Your task to perform on an android device: Turn off the flashlight Image 0: 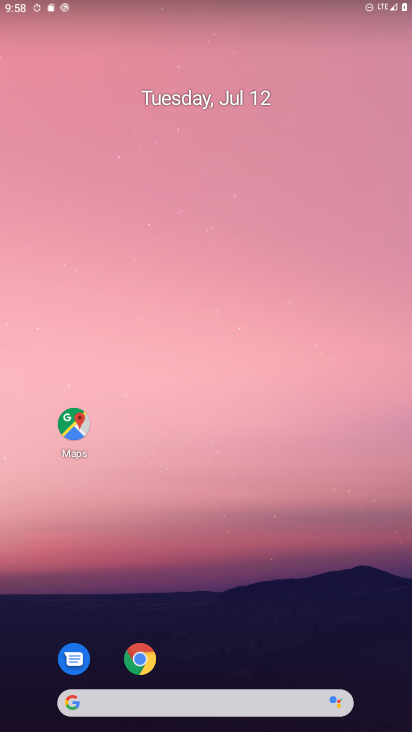
Step 0: drag from (381, 670) to (318, 69)
Your task to perform on an android device: Turn off the flashlight Image 1: 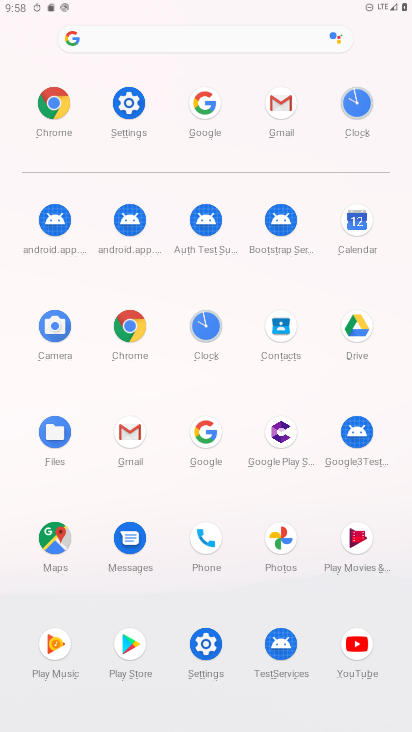
Step 1: click (118, 96)
Your task to perform on an android device: Turn off the flashlight Image 2: 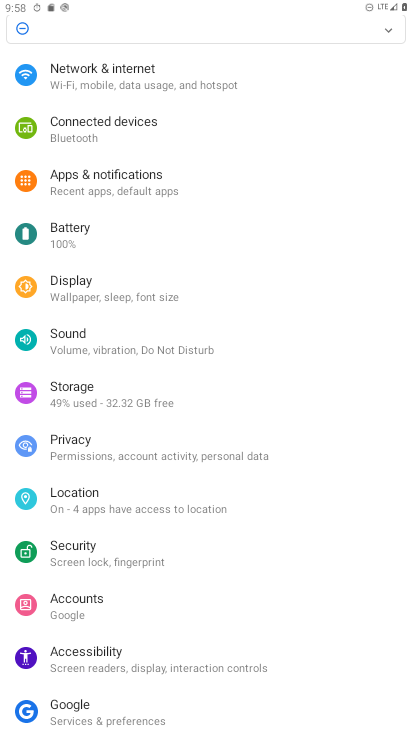
Step 2: task complete